Your task to perform on an android device: check storage Image 0: 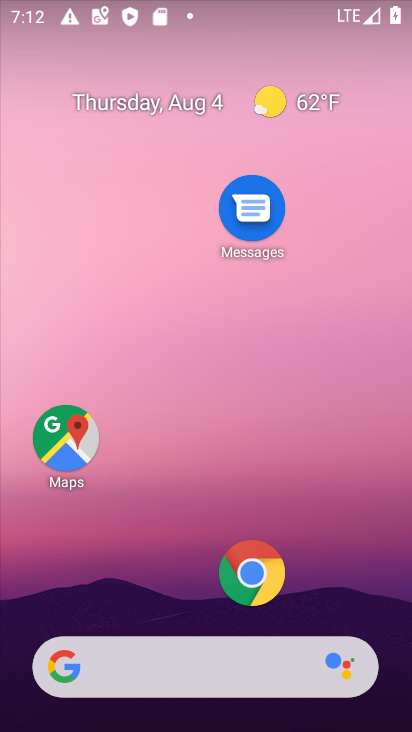
Step 0: press home button
Your task to perform on an android device: check storage Image 1: 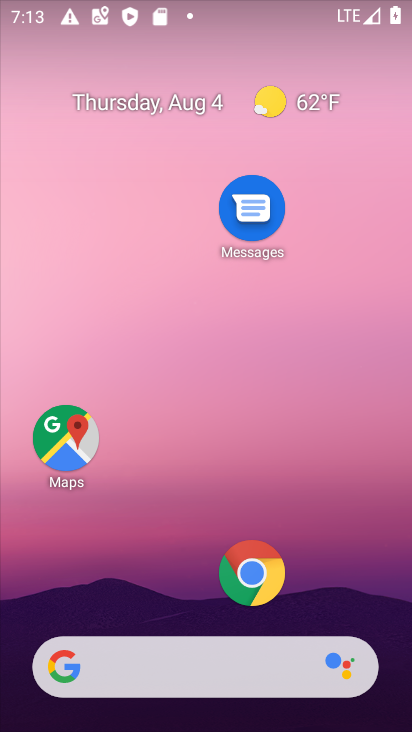
Step 1: drag from (200, 464) to (174, 144)
Your task to perform on an android device: check storage Image 2: 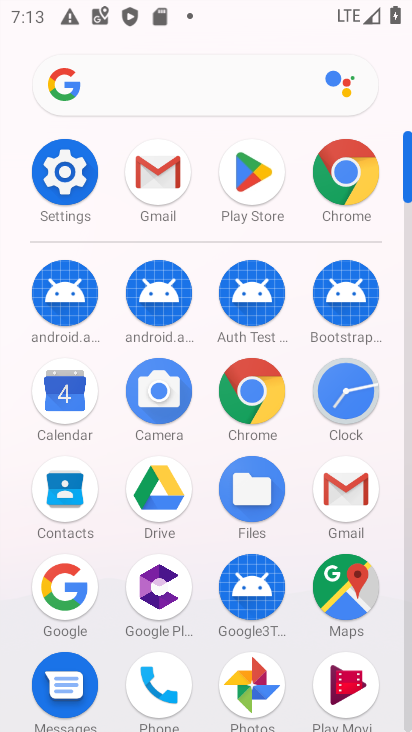
Step 2: click (56, 185)
Your task to perform on an android device: check storage Image 3: 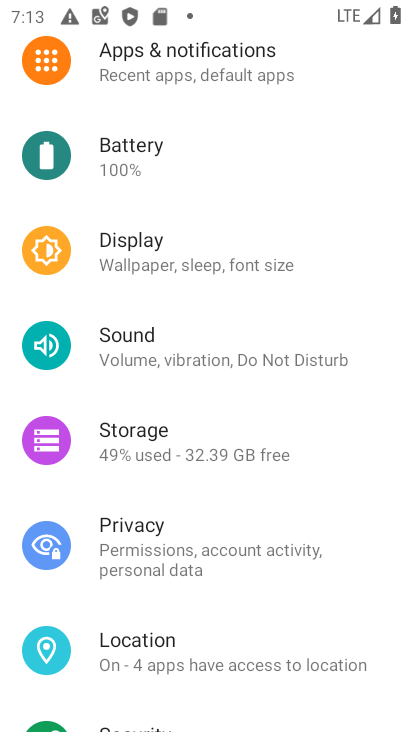
Step 3: click (139, 442)
Your task to perform on an android device: check storage Image 4: 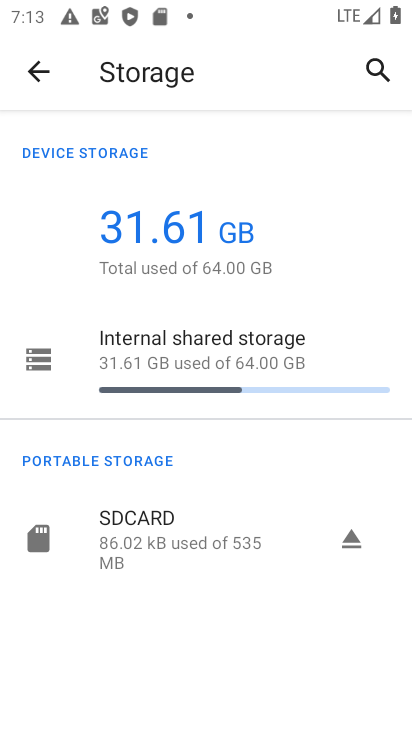
Step 4: task complete